Your task to perform on an android device: turn on the 12-hour format for clock Image 0: 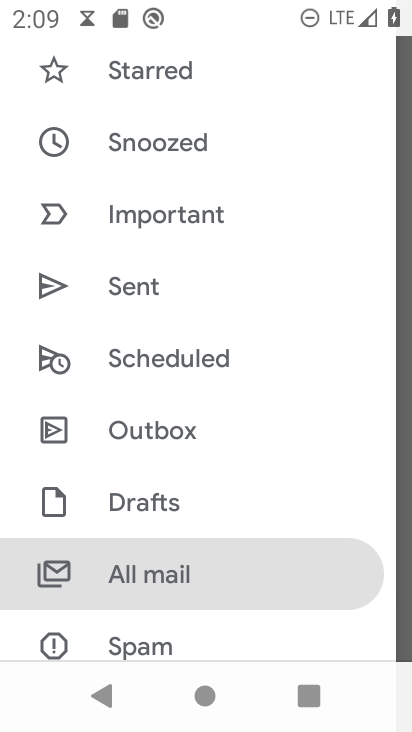
Step 0: press home button
Your task to perform on an android device: turn on the 12-hour format for clock Image 1: 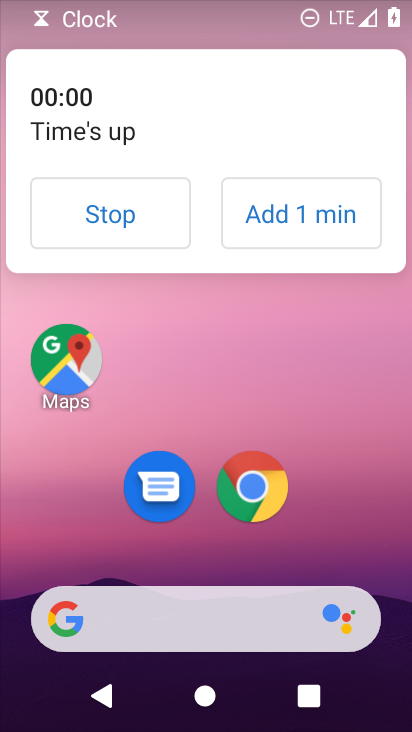
Step 1: drag from (212, 503) to (217, 221)
Your task to perform on an android device: turn on the 12-hour format for clock Image 2: 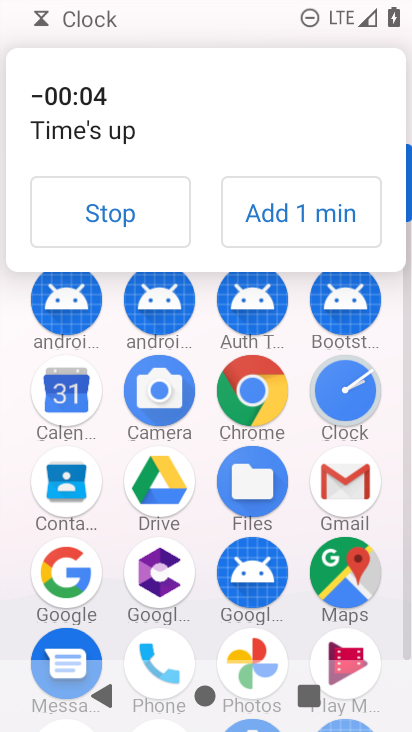
Step 2: click (149, 233)
Your task to perform on an android device: turn on the 12-hour format for clock Image 3: 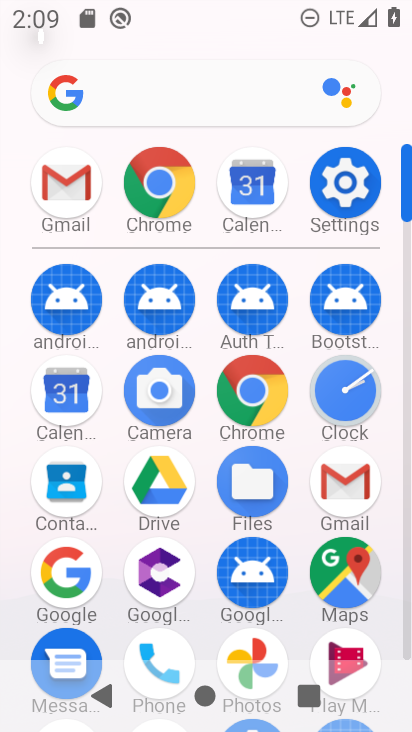
Step 3: click (336, 393)
Your task to perform on an android device: turn on the 12-hour format for clock Image 4: 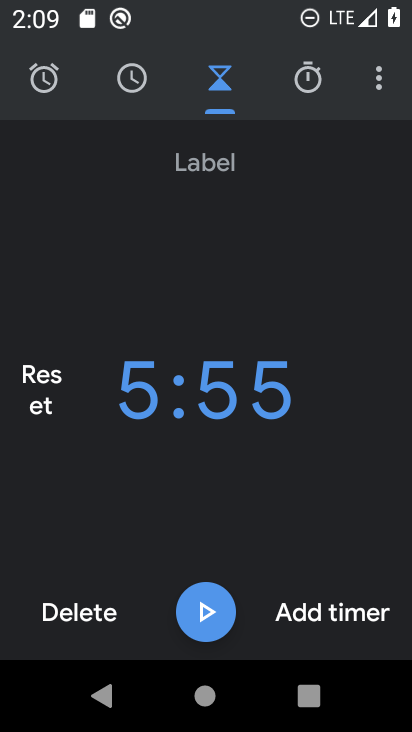
Step 4: click (379, 95)
Your task to perform on an android device: turn on the 12-hour format for clock Image 5: 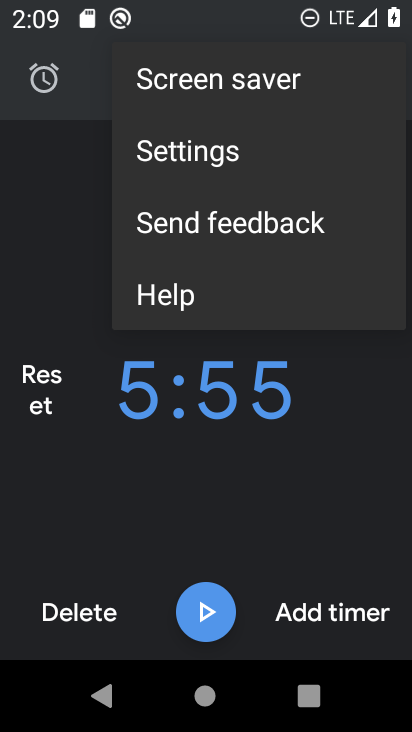
Step 5: click (244, 169)
Your task to perform on an android device: turn on the 12-hour format for clock Image 6: 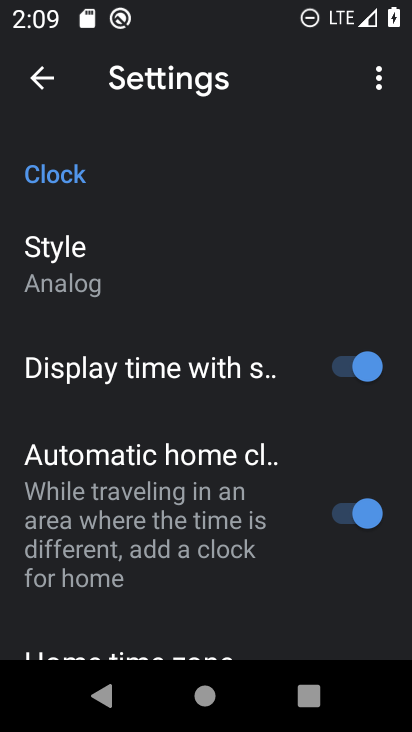
Step 6: drag from (141, 523) to (228, 117)
Your task to perform on an android device: turn on the 12-hour format for clock Image 7: 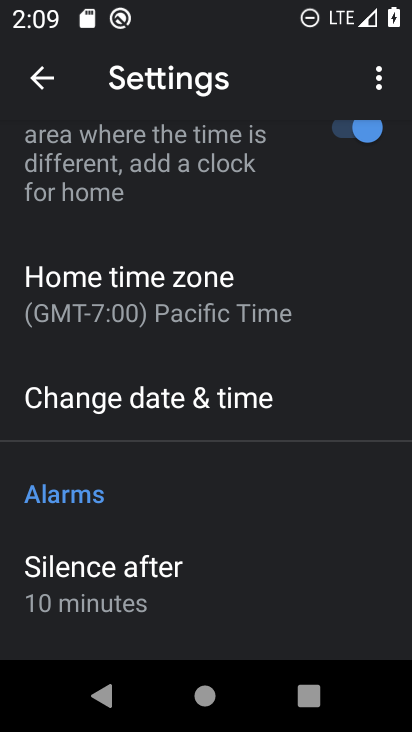
Step 7: click (178, 397)
Your task to perform on an android device: turn on the 12-hour format for clock Image 8: 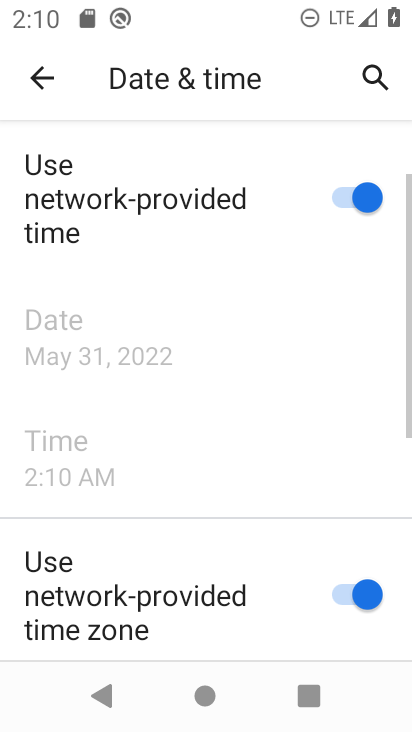
Step 8: task complete